Your task to perform on an android device: Open the map Image 0: 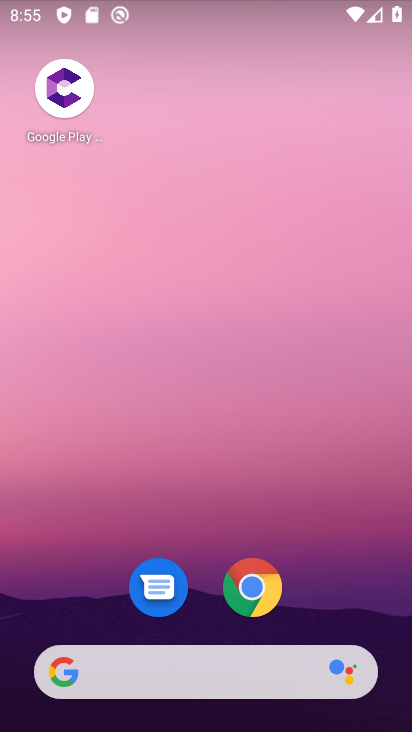
Step 0: drag from (202, 437) to (212, 15)
Your task to perform on an android device: Open the map Image 1: 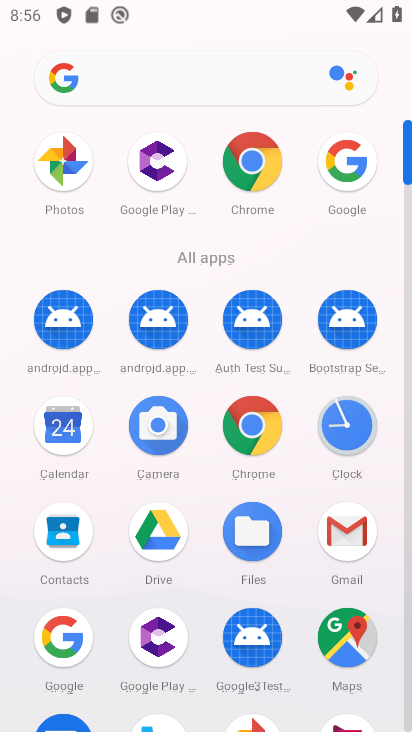
Step 1: click (346, 638)
Your task to perform on an android device: Open the map Image 2: 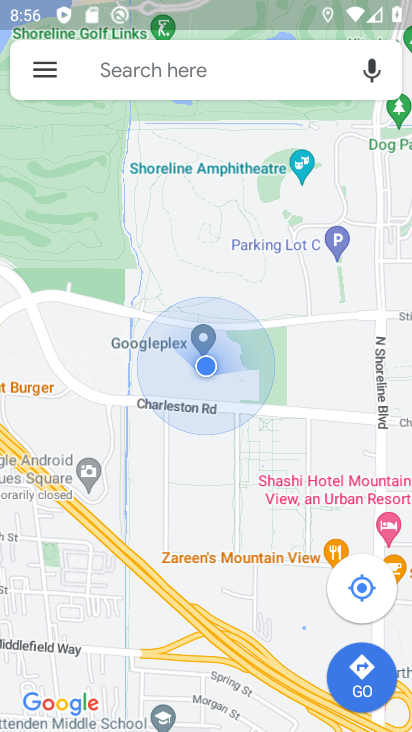
Step 2: task complete